Your task to perform on an android device: Open ESPN.com Image 0: 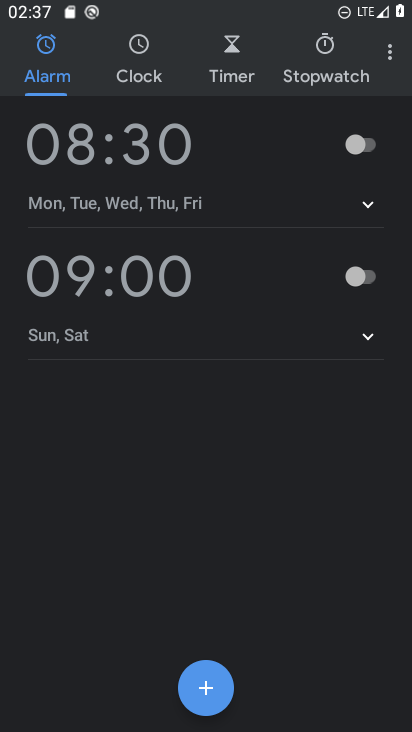
Step 0: press home button
Your task to perform on an android device: Open ESPN.com Image 1: 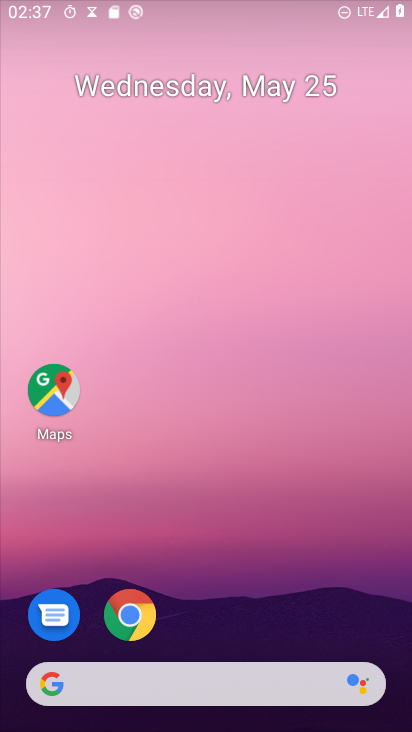
Step 1: drag from (257, 721) to (244, 38)
Your task to perform on an android device: Open ESPN.com Image 2: 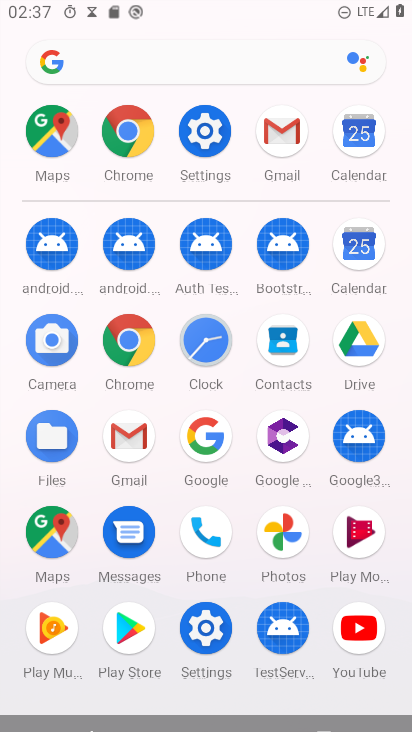
Step 2: click (124, 124)
Your task to perform on an android device: Open ESPN.com Image 3: 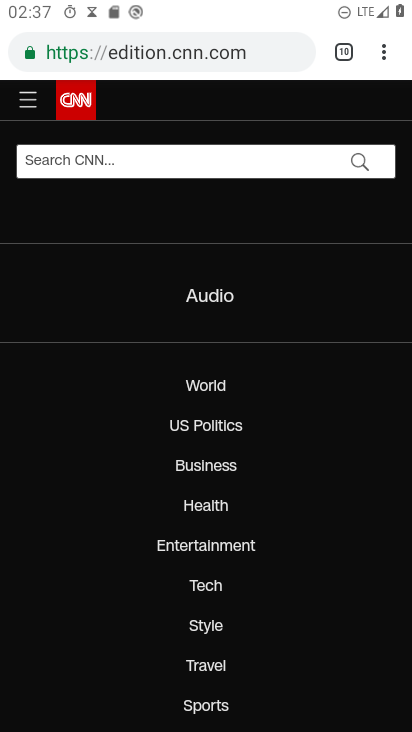
Step 3: click (240, 61)
Your task to perform on an android device: Open ESPN.com Image 4: 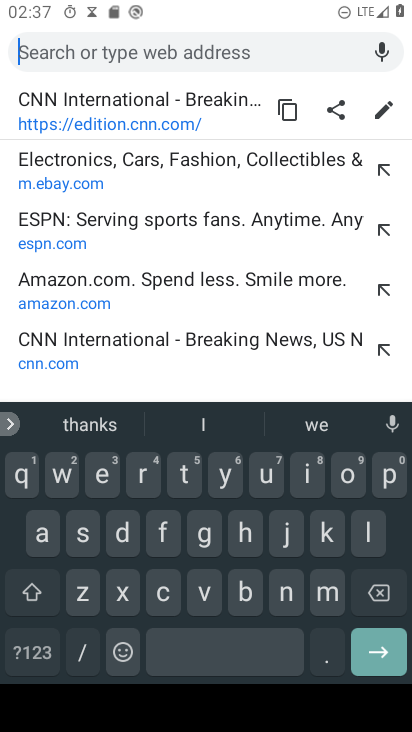
Step 4: click (145, 115)
Your task to perform on an android device: Open ESPN.com Image 5: 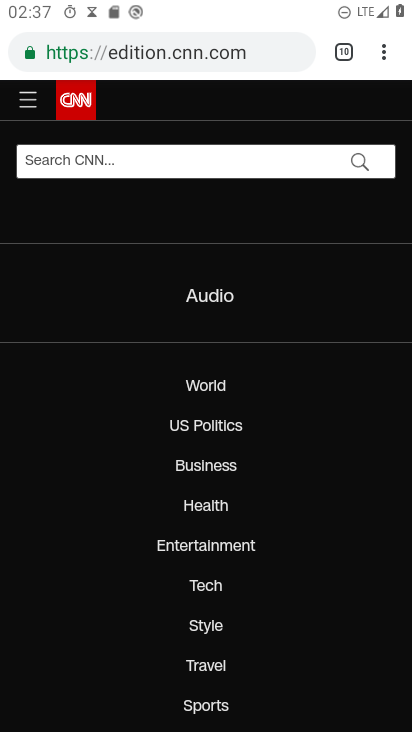
Step 5: task complete